Your task to perform on an android device: Go to privacy settings Image 0: 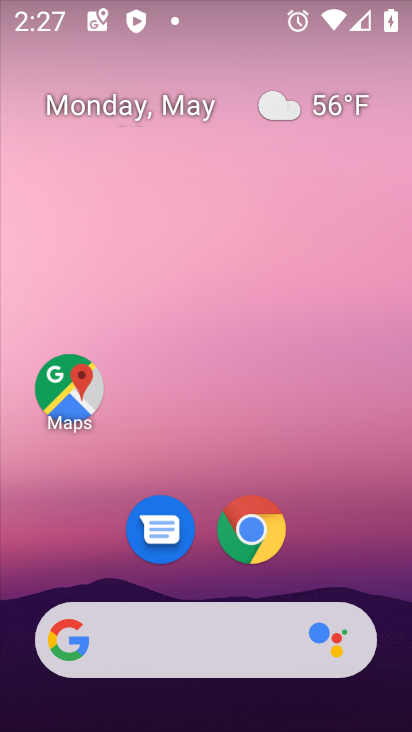
Step 0: drag from (330, 578) to (348, 18)
Your task to perform on an android device: Go to privacy settings Image 1: 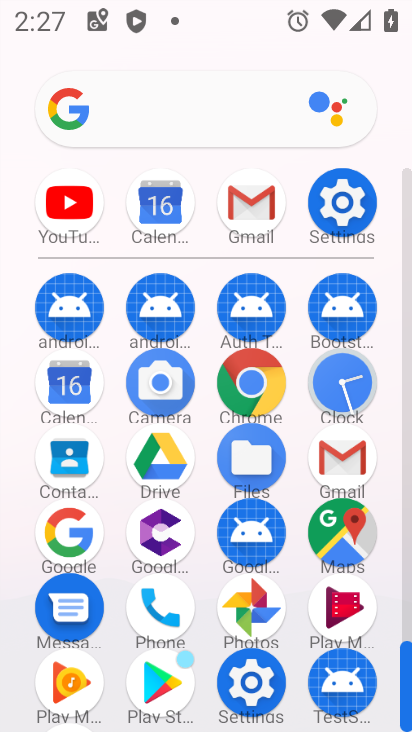
Step 1: click (338, 184)
Your task to perform on an android device: Go to privacy settings Image 2: 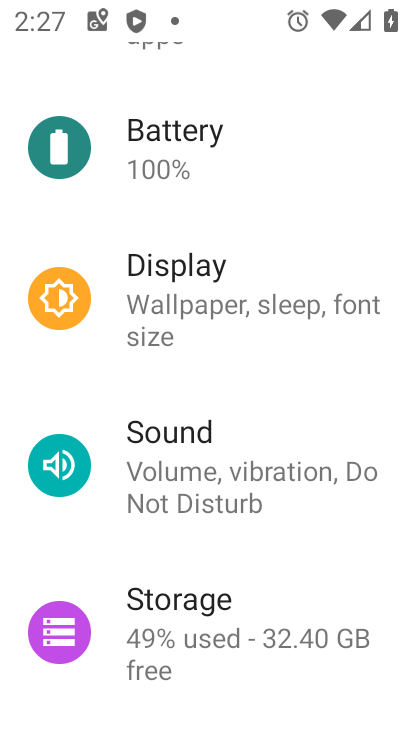
Step 2: drag from (198, 631) to (183, 424)
Your task to perform on an android device: Go to privacy settings Image 3: 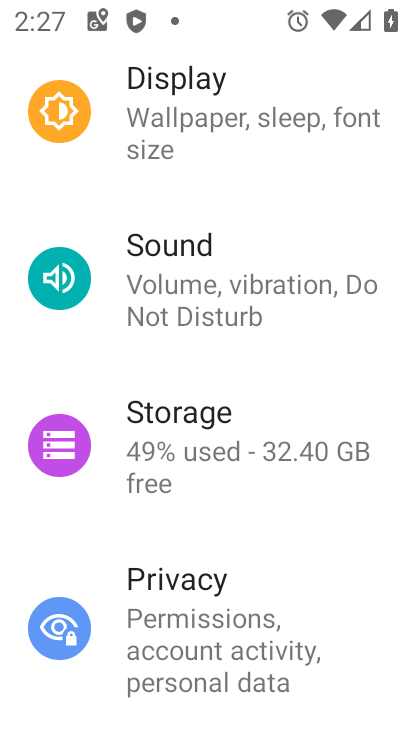
Step 3: drag from (249, 641) to (243, 518)
Your task to perform on an android device: Go to privacy settings Image 4: 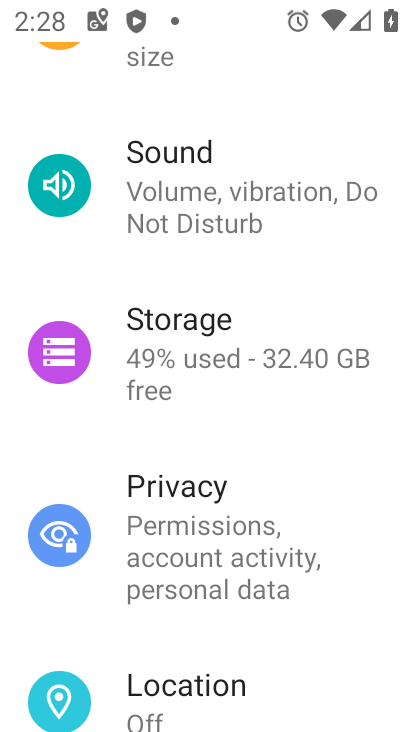
Step 4: click (252, 558)
Your task to perform on an android device: Go to privacy settings Image 5: 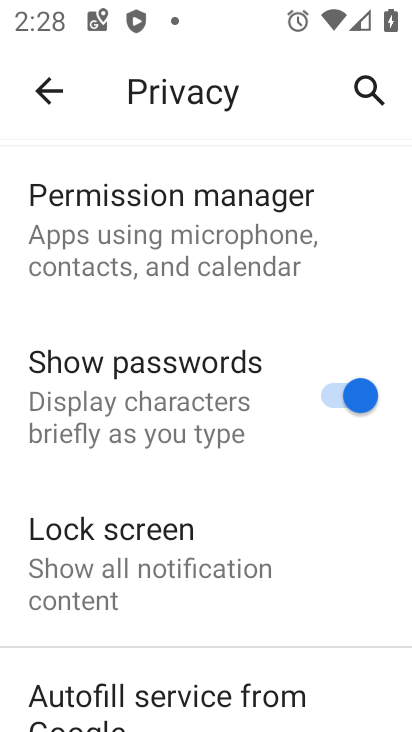
Step 5: task complete